Your task to perform on an android device: What's the weather? Image 0: 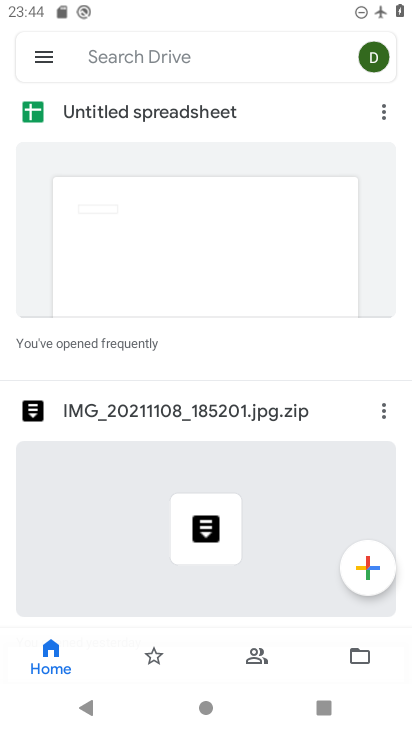
Step 0: press home button
Your task to perform on an android device: What's the weather? Image 1: 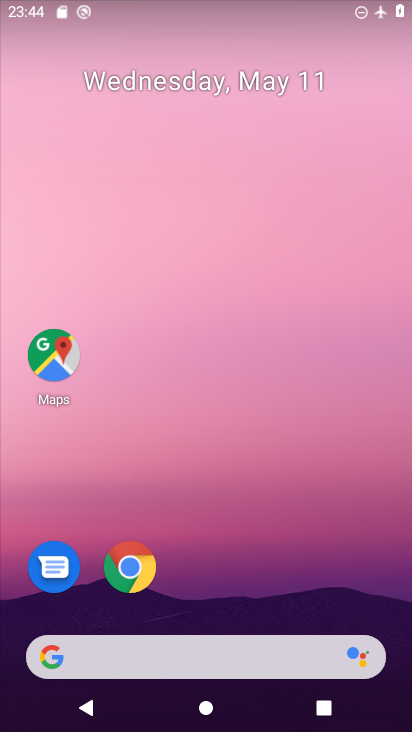
Step 1: click (267, 671)
Your task to perform on an android device: What's the weather? Image 2: 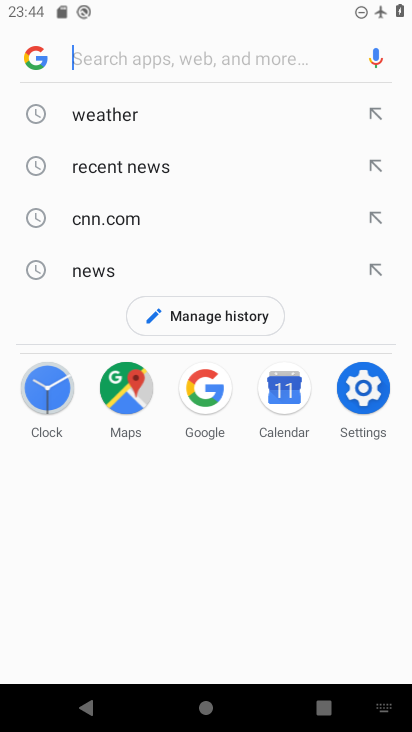
Step 2: type "What's the weather?"
Your task to perform on an android device: What's the weather? Image 3: 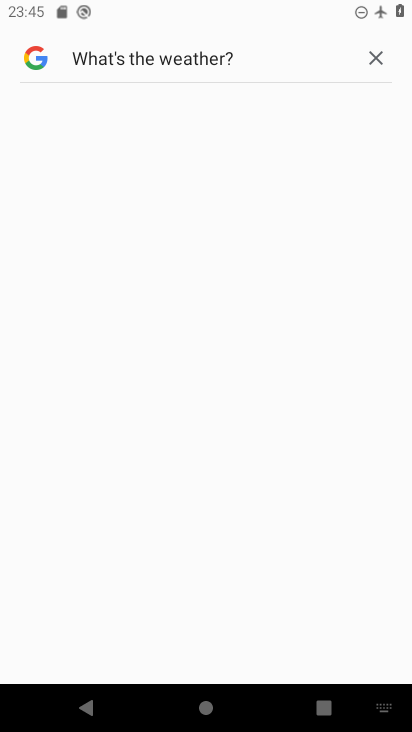
Step 3: task complete